Your task to perform on an android device: make emails show in primary in the gmail app Image 0: 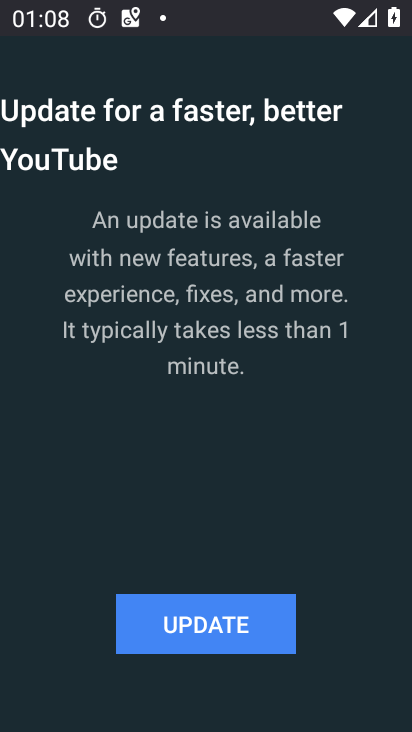
Step 0: press home button
Your task to perform on an android device: make emails show in primary in the gmail app Image 1: 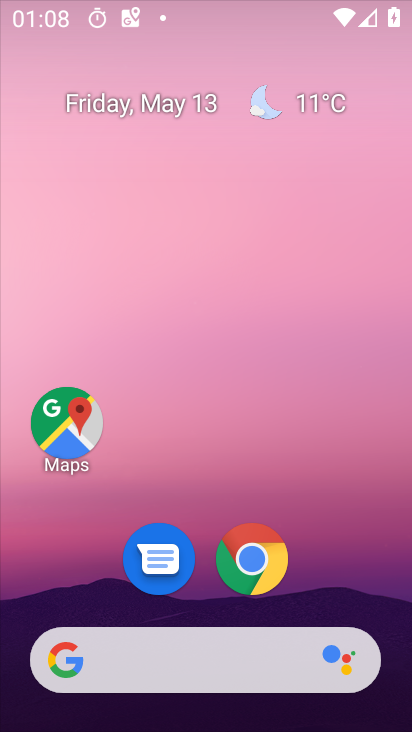
Step 1: drag from (369, 518) to (299, 63)
Your task to perform on an android device: make emails show in primary in the gmail app Image 2: 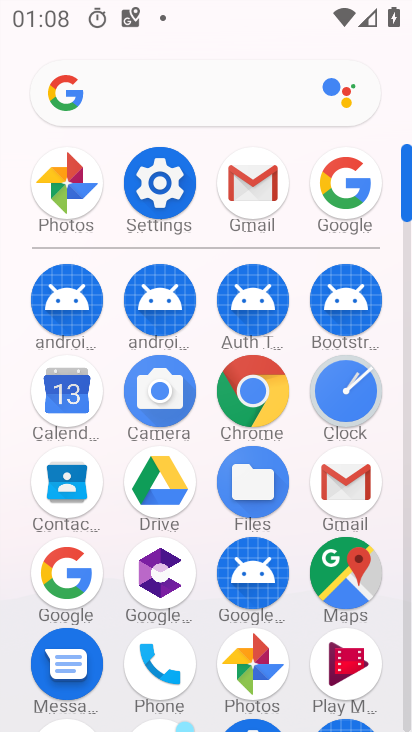
Step 2: click (244, 165)
Your task to perform on an android device: make emails show in primary in the gmail app Image 3: 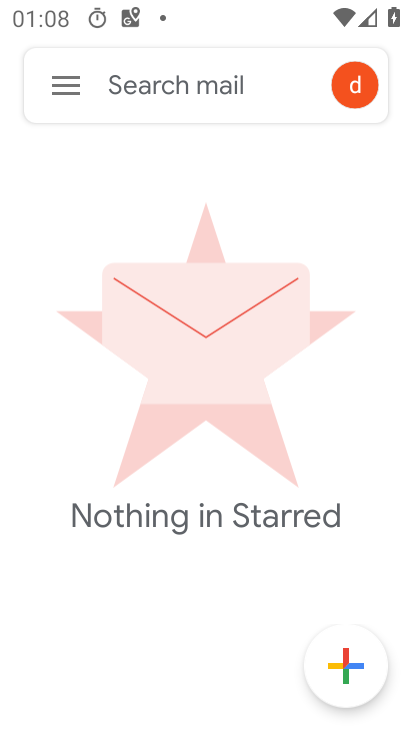
Step 3: click (77, 86)
Your task to perform on an android device: make emails show in primary in the gmail app Image 4: 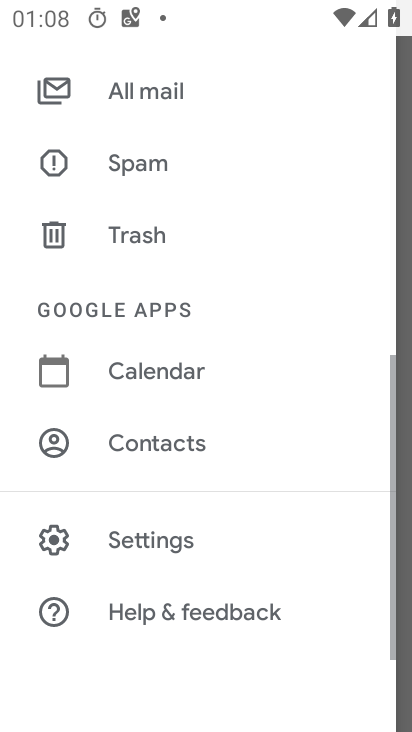
Step 4: click (174, 521)
Your task to perform on an android device: make emails show in primary in the gmail app Image 5: 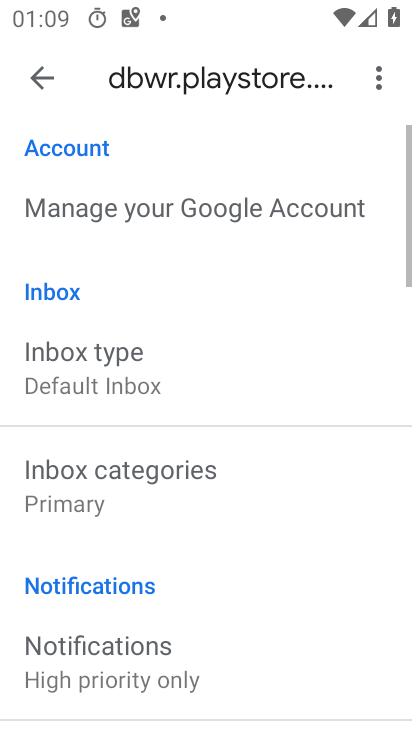
Step 5: task complete